Your task to perform on an android device: search for starred emails in the gmail app Image 0: 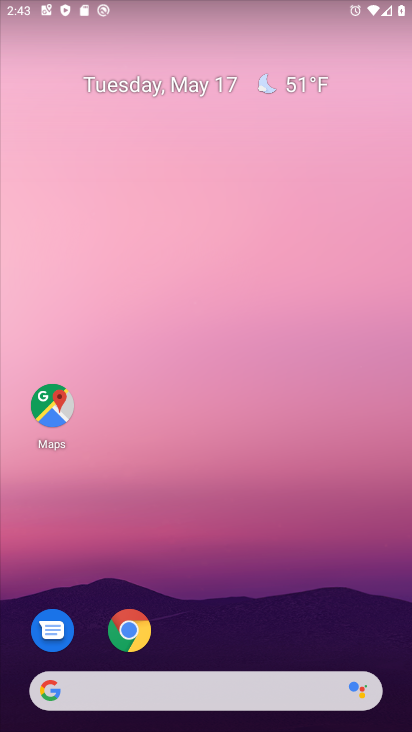
Step 0: drag from (235, 621) to (295, 132)
Your task to perform on an android device: search for starred emails in the gmail app Image 1: 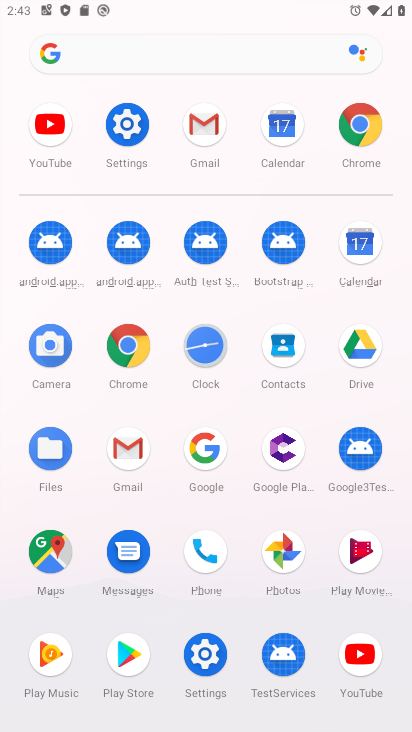
Step 1: click (206, 123)
Your task to perform on an android device: search for starred emails in the gmail app Image 2: 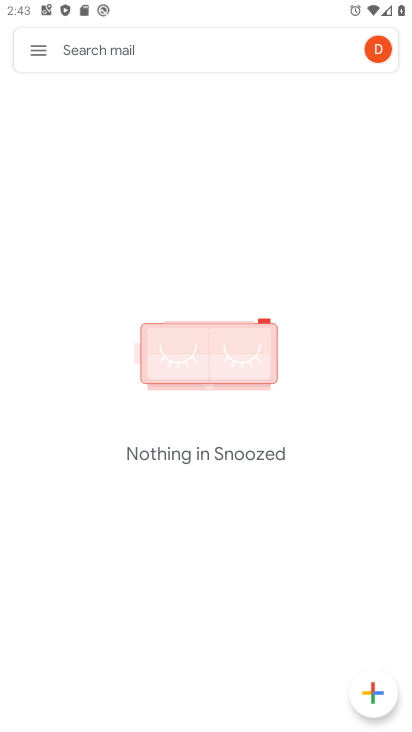
Step 2: click (45, 47)
Your task to perform on an android device: search for starred emails in the gmail app Image 3: 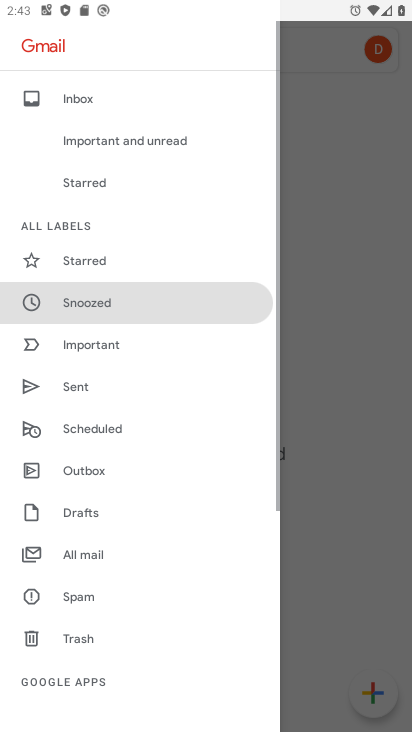
Step 3: click (119, 249)
Your task to perform on an android device: search for starred emails in the gmail app Image 4: 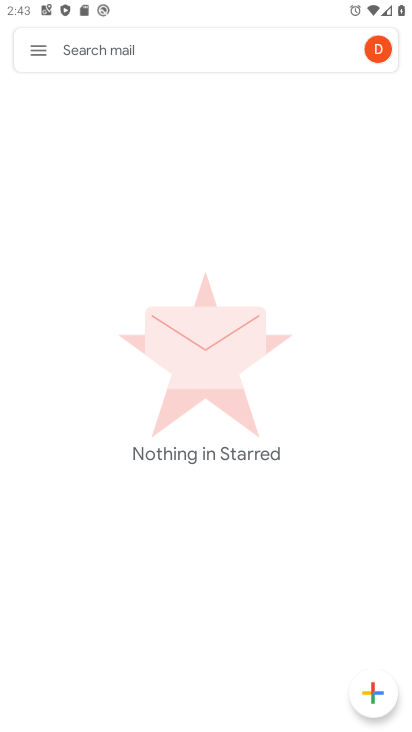
Step 4: task complete